Your task to perform on an android device: Look up the best rated video games on bestbuy.com Image 0: 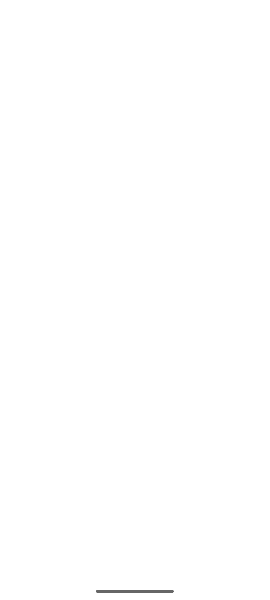
Step 0: press home button
Your task to perform on an android device: Look up the best rated video games on bestbuy.com Image 1: 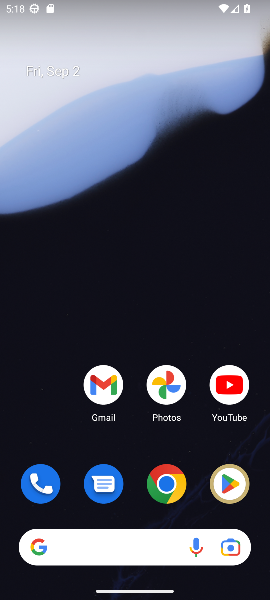
Step 1: click (154, 486)
Your task to perform on an android device: Look up the best rated video games on bestbuy.com Image 2: 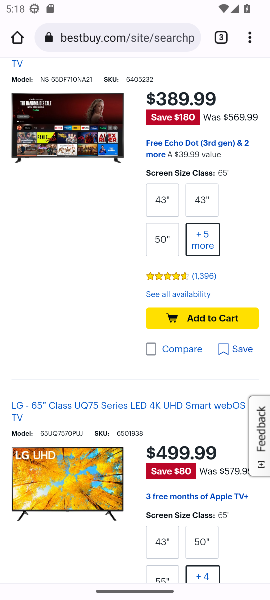
Step 2: click (170, 34)
Your task to perform on an android device: Look up the best rated video games on bestbuy.com Image 3: 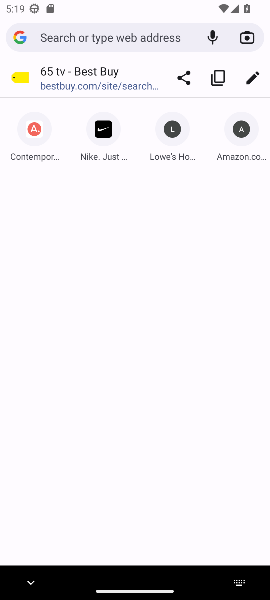
Step 3: type " bestbuy.com"
Your task to perform on an android device: Look up the best rated video games on bestbuy.com Image 4: 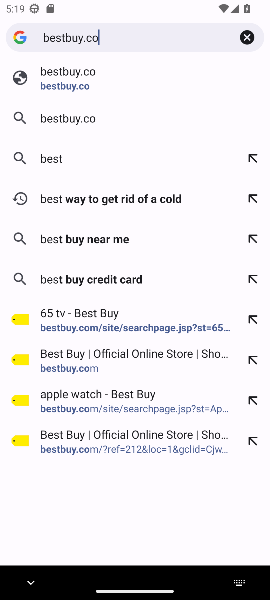
Step 4: press enter
Your task to perform on an android device: Look up the best rated video games on bestbuy.com Image 5: 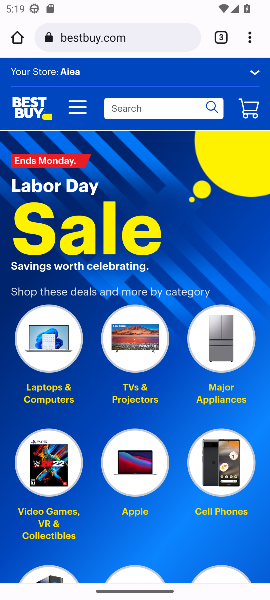
Step 5: click (165, 110)
Your task to perform on an android device: Look up the best rated video games on bestbuy.com Image 6: 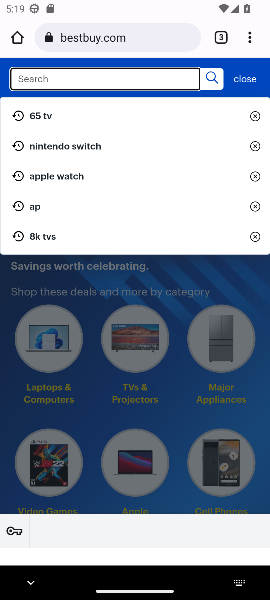
Step 6: type " video games "
Your task to perform on an android device: Look up the best rated video games on bestbuy.com Image 7: 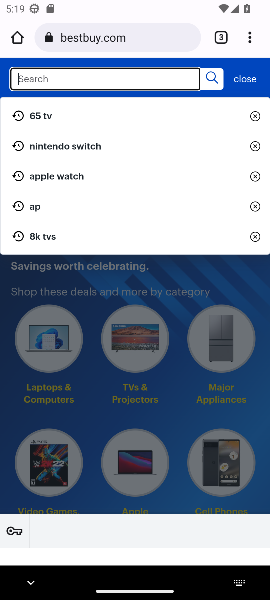
Step 7: press enter
Your task to perform on an android device: Look up the best rated video games on bestbuy.com Image 8: 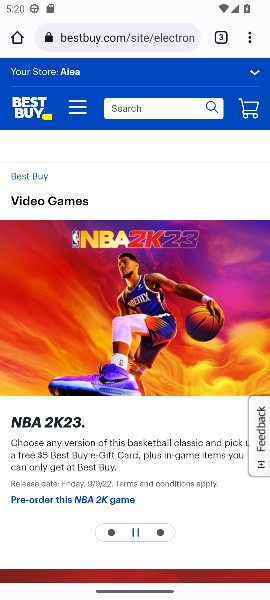
Step 8: drag from (100, 439) to (208, 153)
Your task to perform on an android device: Look up the best rated video games on bestbuy.com Image 9: 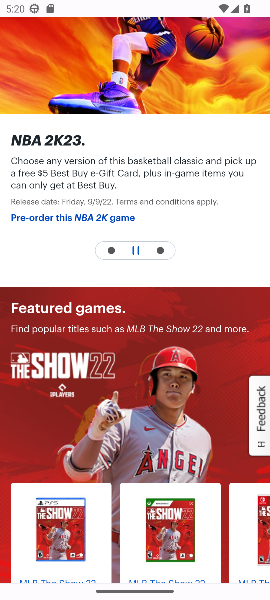
Step 9: drag from (145, 359) to (188, 29)
Your task to perform on an android device: Look up the best rated video games on bestbuy.com Image 10: 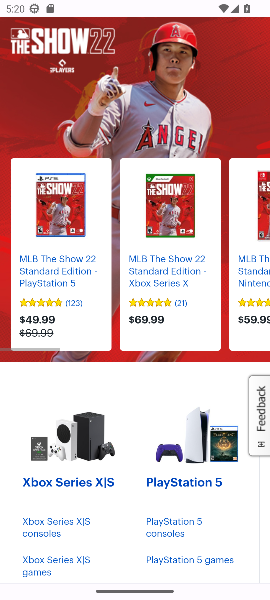
Step 10: drag from (171, 415) to (228, 180)
Your task to perform on an android device: Look up the best rated video games on bestbuy.com Image 11: 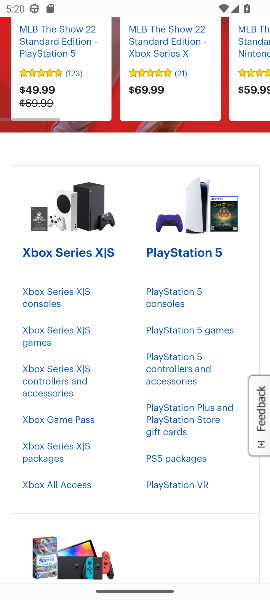
Step 11: drag from (141, 475) to (185, 132)
Your task to perform on an android device: Look up the best rated video games on bestbuy.com Image 12: 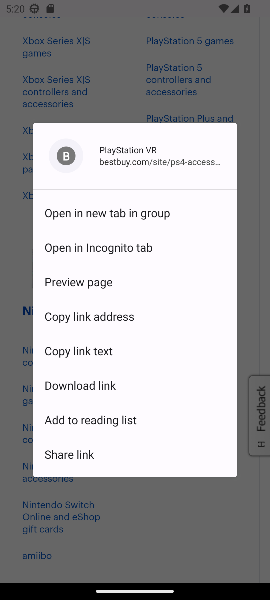
Step 12: click (221, 530)
Your task to perform on an android device: Look up the best rated video games on bestbuy.com Image 13: 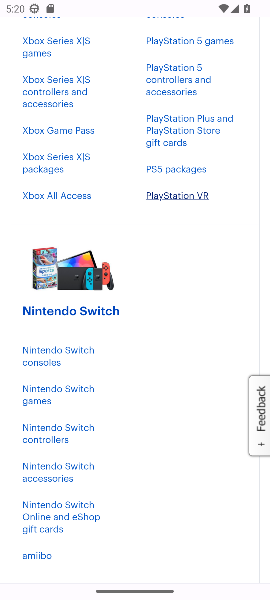
Step 13: task complete